Your task to perform on an android device: turn off location history Image 0: 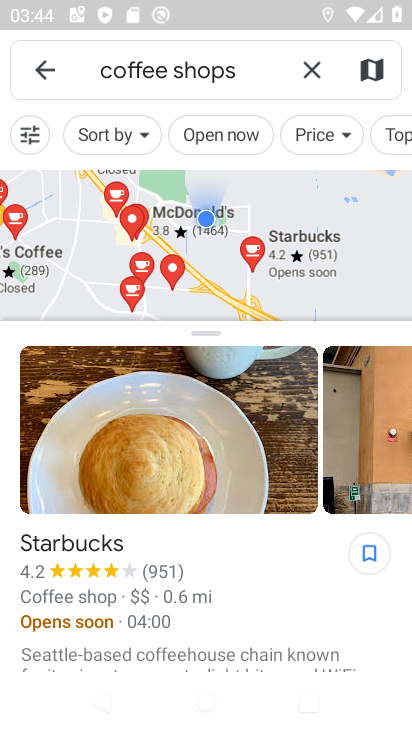
Step 0: click (48, 67)
Your task to perform on an android device: turn off location history Image 1: 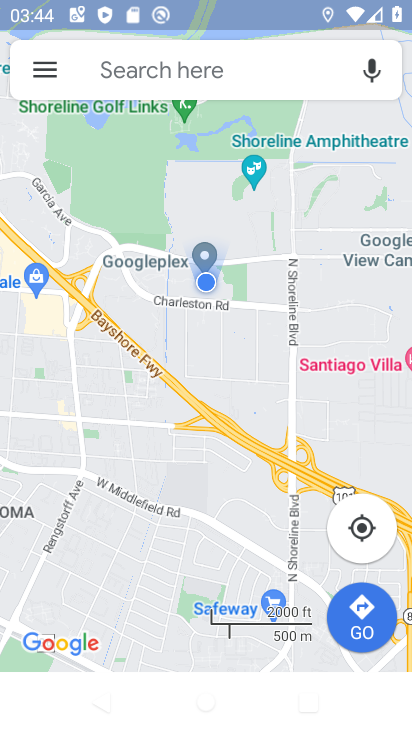
Step 1: click (48, 67)
Your task to perform on an android device: turn off location history Image 2: 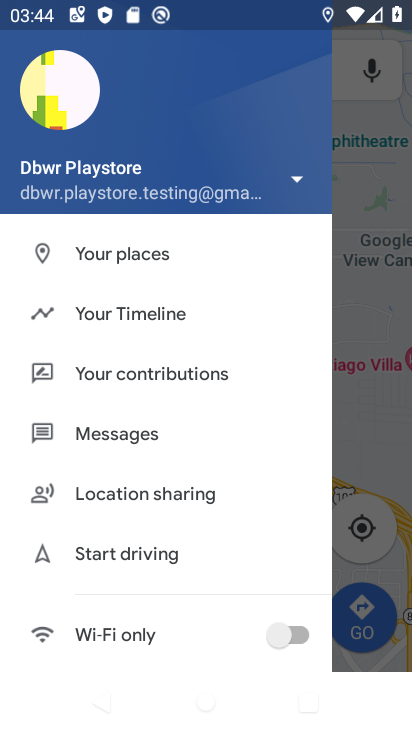
Step 2: click (83, 303)
Your task to perform on an android device: turn off location history Image 3: 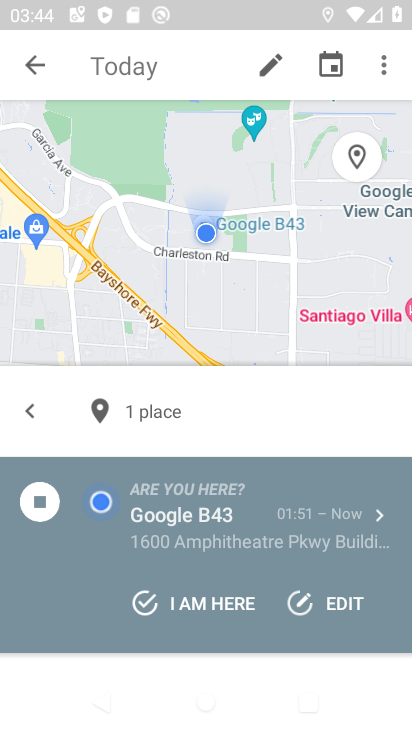
Step 3: click (394, 64)
Your task to perform on an android device: turn off location history Image 4: 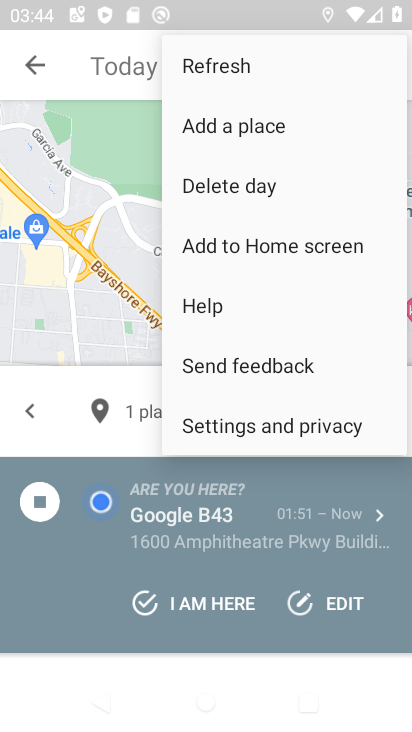
Step 4: click (328, 421)
Your task to perform on an android device: turn off location history Image 5: 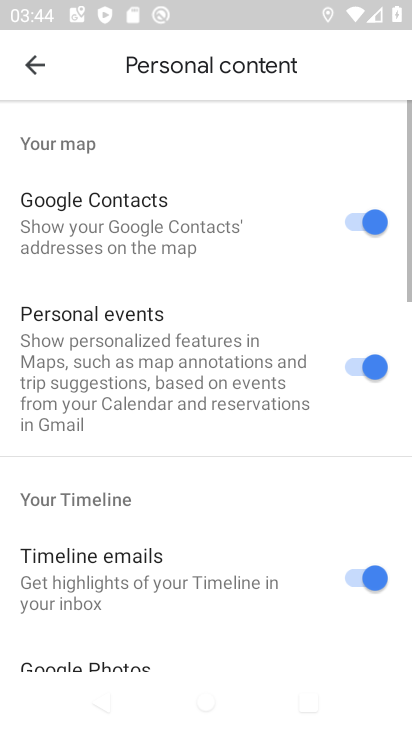
Step 5: drag from (202, 556) to (191, 280)
Your task to perform on an android device: turn off location history Image 6: 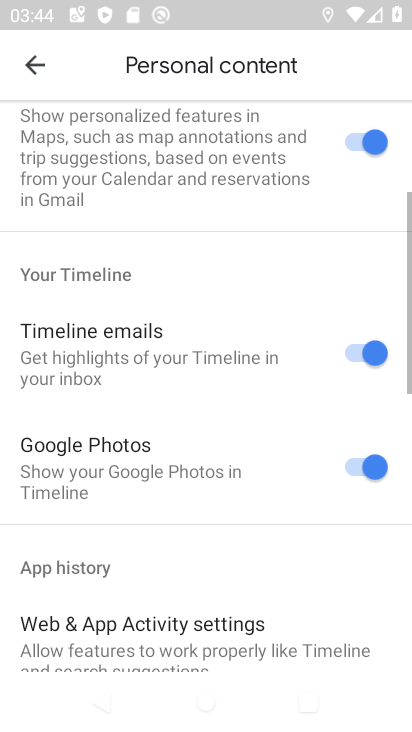
Step 6: drag from (201, 419) to (189, 220)
Your task to perform on an android device: turn off location history Image 7: 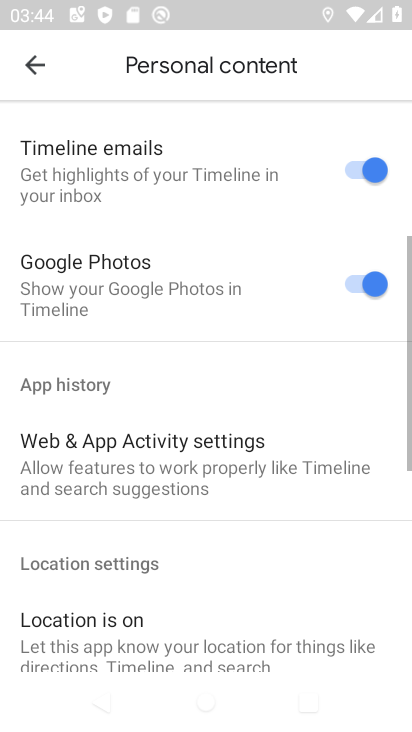
Step 7: drag from (196, 422) to (212, 203)
Your task to perform on an android device: turn off location history Image 8: 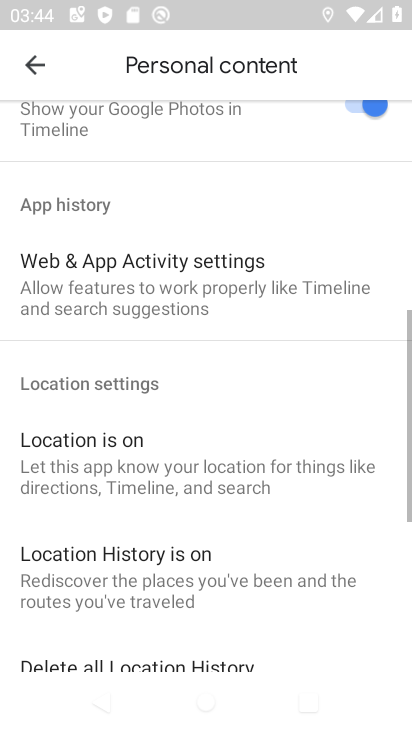
Step 8: drag from (223, 374) to (217, 238)
Your task to perform on an android device: turn off location history Image 9: 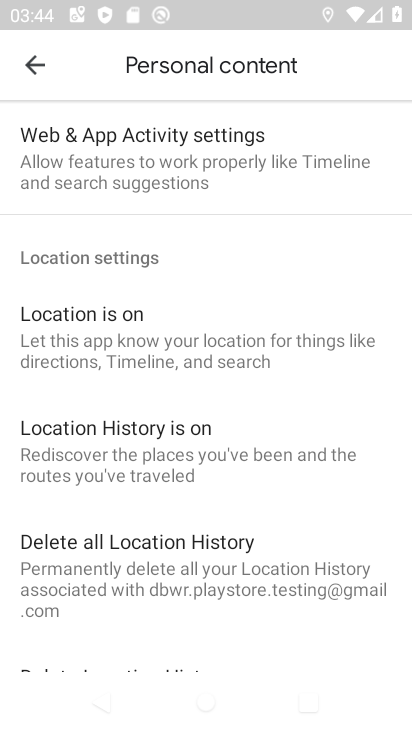
Step 9: click (177, 427)
Your task to perform on an android device: turn off location history Image 10: 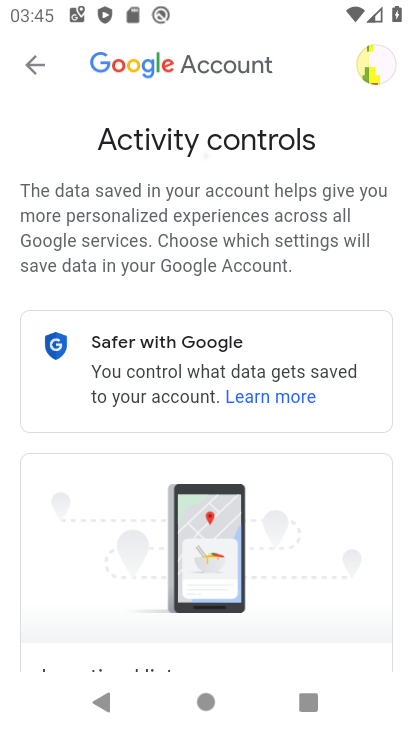
Step 10: drag from (303, 619) to (276, 97)
Your task to perform on an android device: turn off location history Image 11: 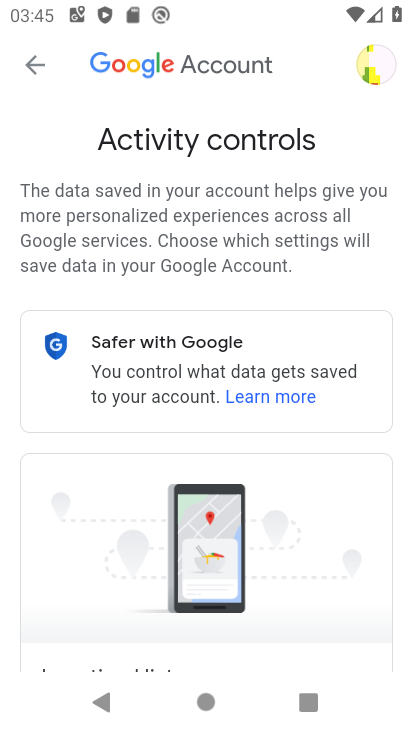
Step 11: drag from (361, 571) to (264, 18)
Your task to perform on an android device: turn off location history Image 12: 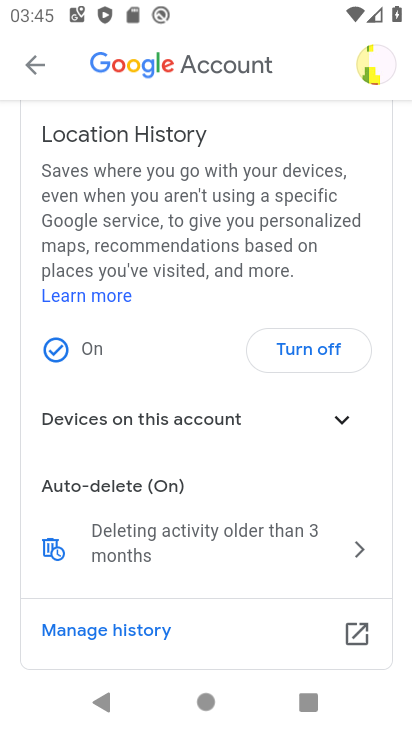
Step 12: click (306, 359)
Your task to perform on an android device: turn off location history Image 13: 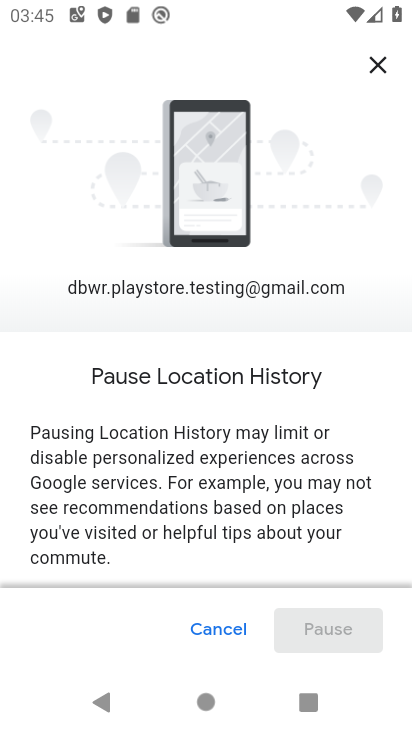
Step 13: drag from (340, 601) to (257, 12)
Your task to perform on an android device: turn off location history Image 14: 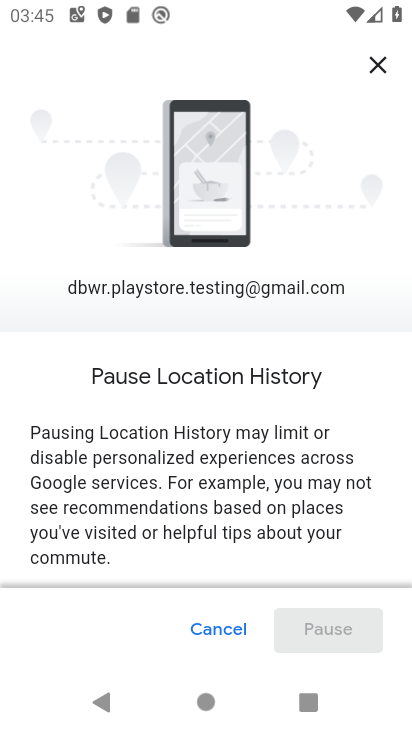
Step 14: drag from (198, 486) to (171, 222)
Your task to perform on an android device: turn off location history Image 15: 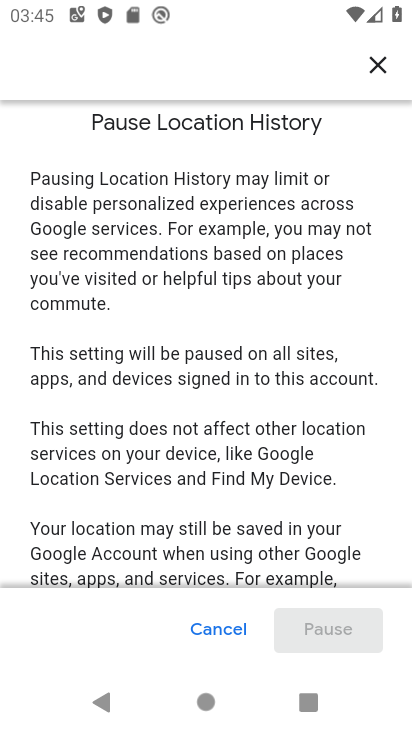
Step 15: drag from (215, 447) to (177, 339)
Your task to perform on an android device: turn off location history Image 16: 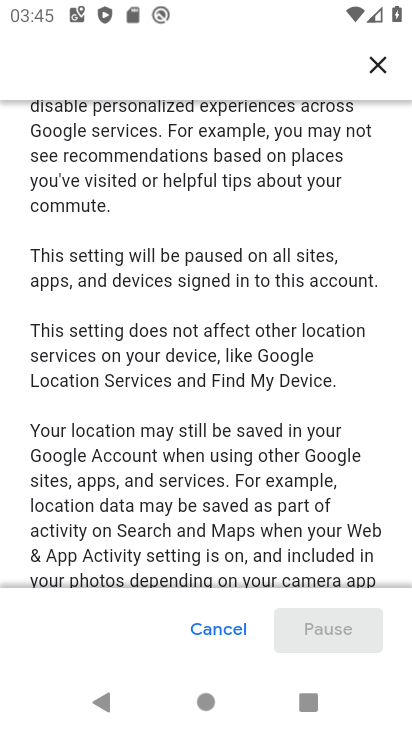
Step 16: drag from (185, 267) to (181, 186)
Your task to perform on an android device: turn off location history Image 17: 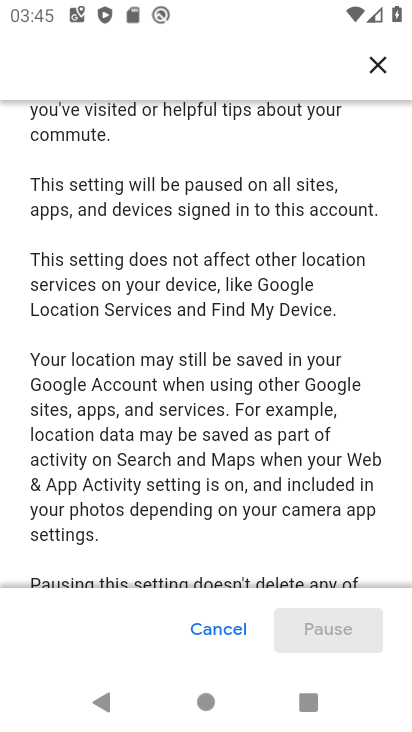
Step 17: drag from (191, 427) to (185, 297)
Your task to perform on an android device: turn off location history Image 18: 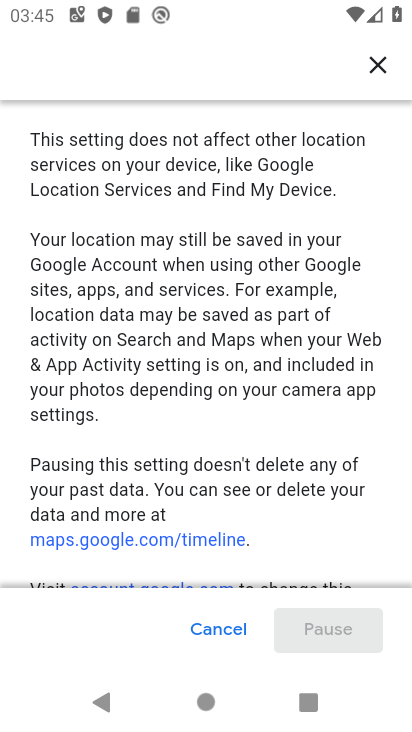
Step 18: drag from (218, 357) to (202, 186)
Your task to perform on an android device: turn off location history Image 19: 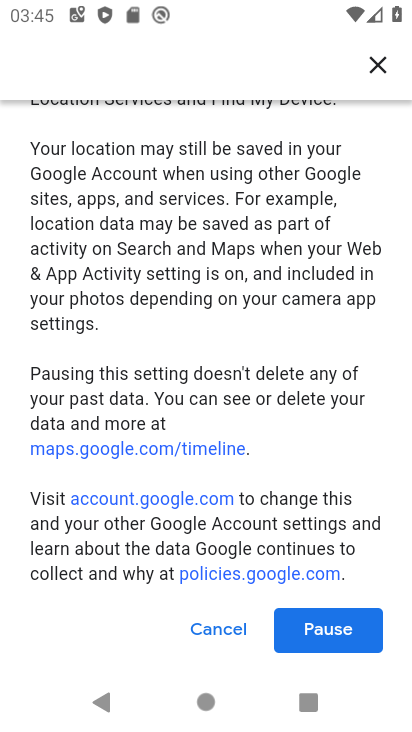
Step 19: drag from (200, 319) to (198, 256)
Your task to perform on an android device: turn off location history Image 20: 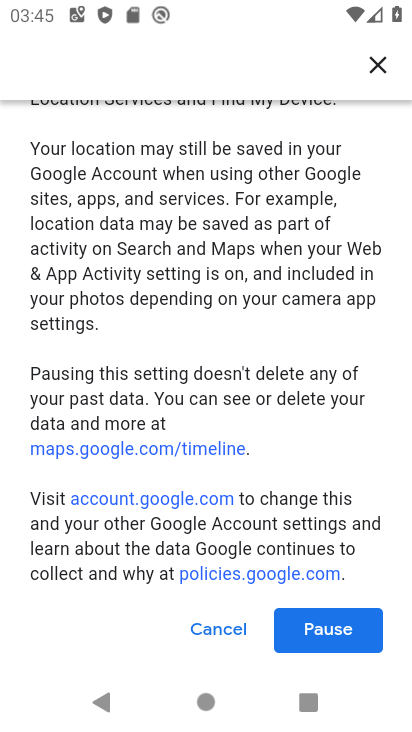
Step 20: drag from (210, 269) to (207, 77)
Your task to perform on an android device: turn off location history Image 21: 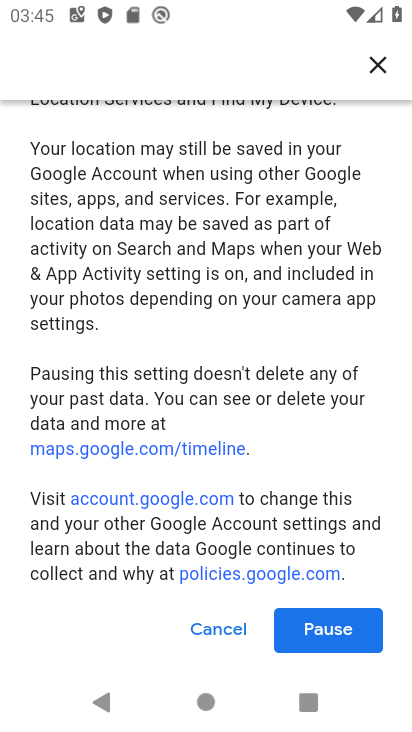
Step 21: click (314, 618)
Your task to perform on an android device: turn off location history Image 22: 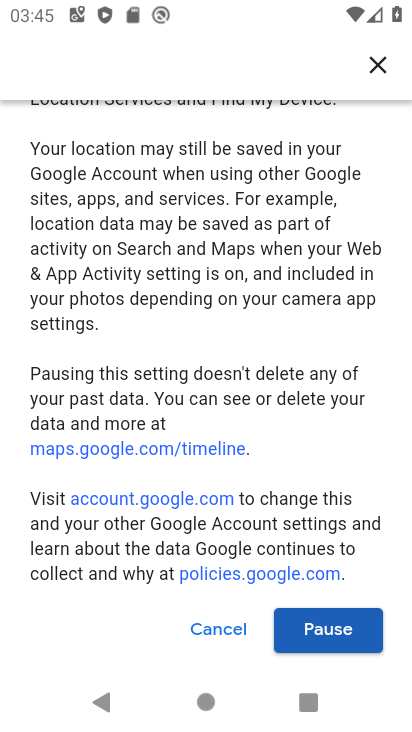
Step 22: click (290, 629)
Your task to perform on an android device: turn off location history Image 23: 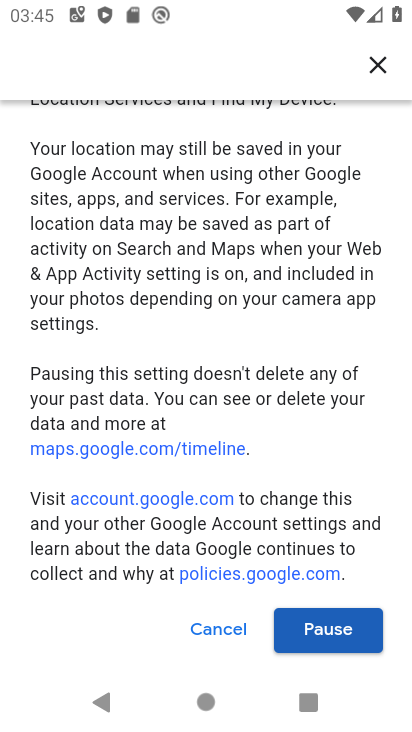
Step 23: click (350, 632)
Your task to perform on an android device: turn off location history Image 24: 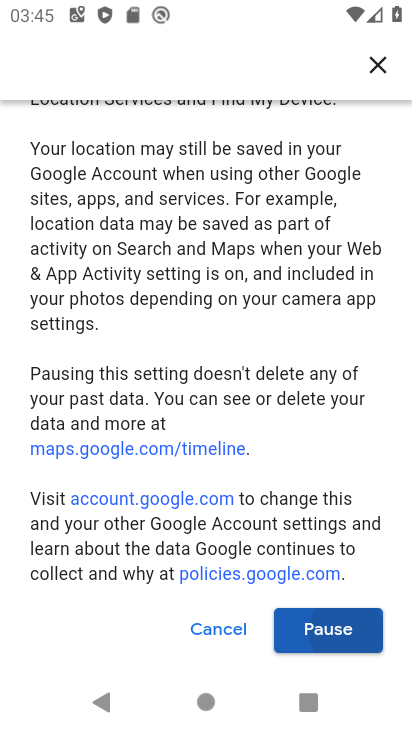
Step 24: click (350, 632)
Your task to perform on an android device: turn off location history Image 25: 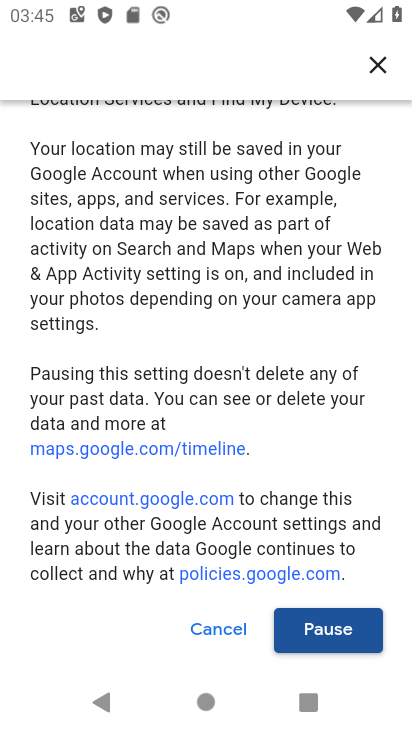
Step 25: click (350, 632)
Your task to perform on an android device: turn off location history Image 26: 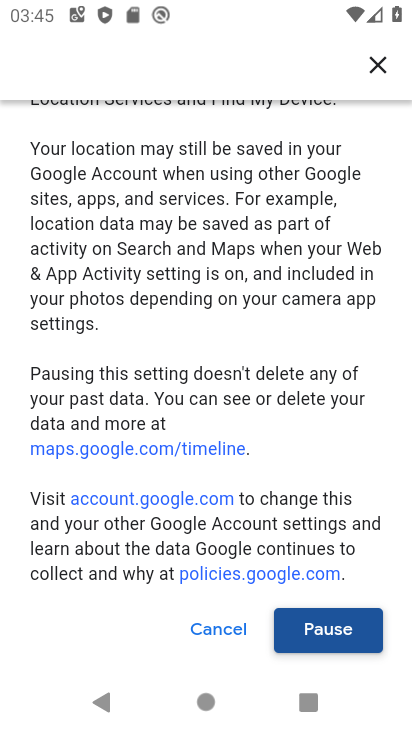
Step 26: click (350, 632)
Your task to perform on an android device: turn off location history Image 27: 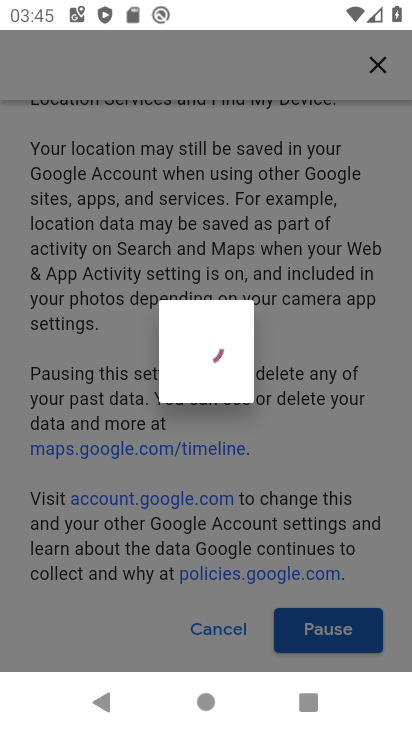
Step 27: click (350, 632)
Your task to perform on an android device: turn off location history Image 28: 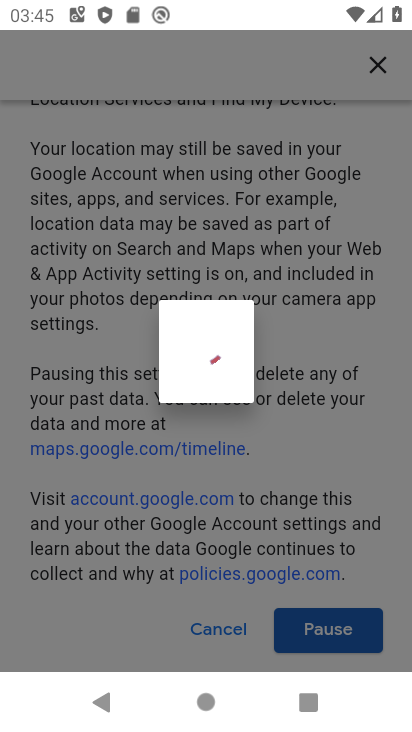
Step 28: click (350, 632)
Your task to perform on an android device: turn off location history Image 29: 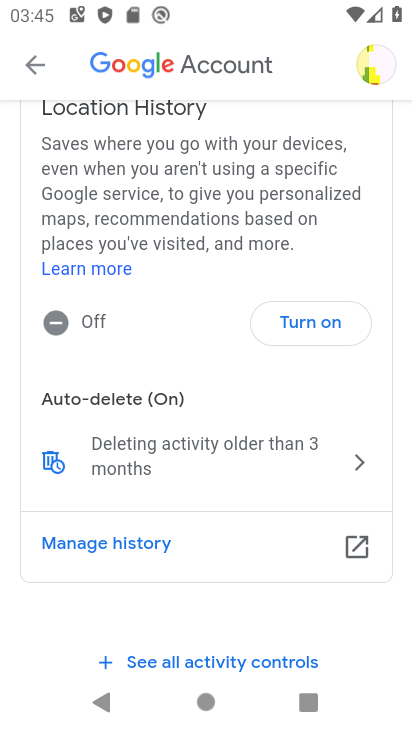
Step 29: task complete